Your task to perform on an android device: turn off sleep mode Image 0: 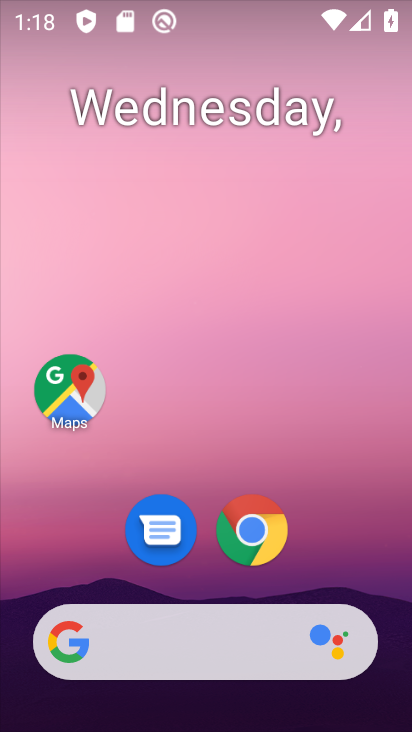
Step 0: drag from (197, 609) to (289, 149)
Your task to perform on an android device: turn off sleep mode Image 1: 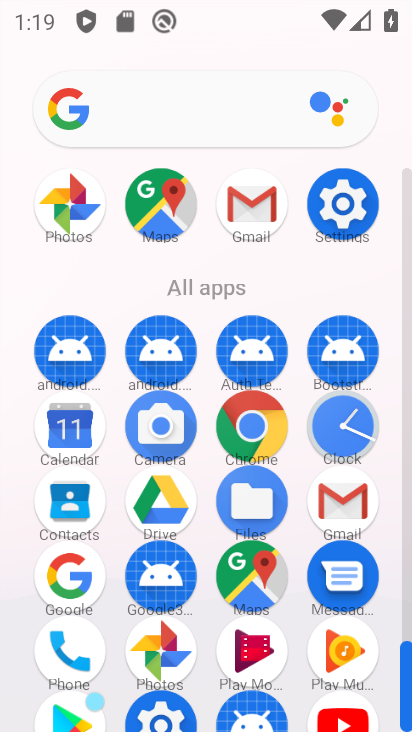
Step 1: drag from (175, 691) to (238, 415)
Your task to perform on an android device: turn off sleep mode Image 2: 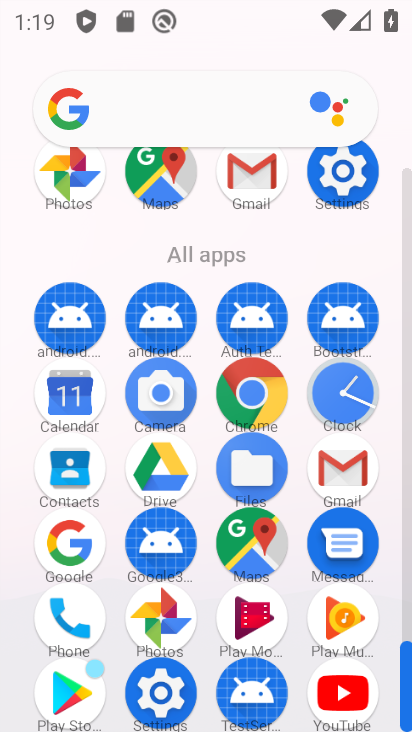
Step 2: click (155, 711)
Your task to perform on an android device: turn off sleep mode Image 3: 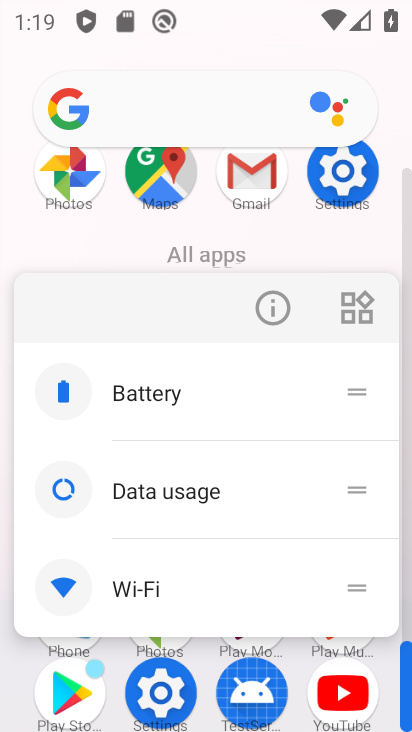
Step 3: click (154, 708)
Your task to perform on an android device: turn off sleep mode Image 4: 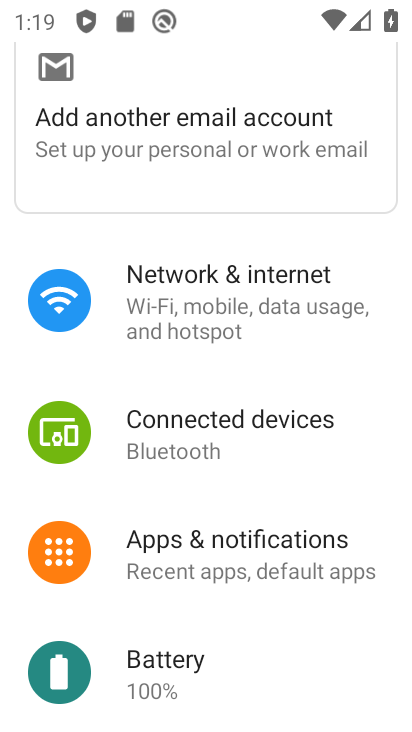
Step 4: drag from (201, 661) to (257, 285)
Your task to perform on an android device: turn off sleep mode Image 5: 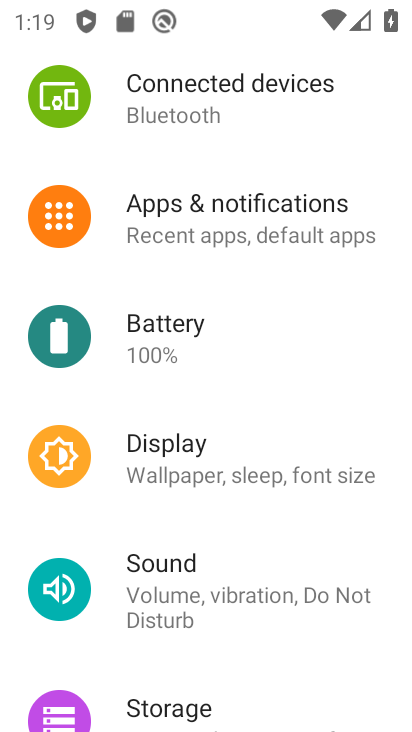
Step 5: click (225, 430)
Your task to perform on an android device: turn off sleep mode Image 6: 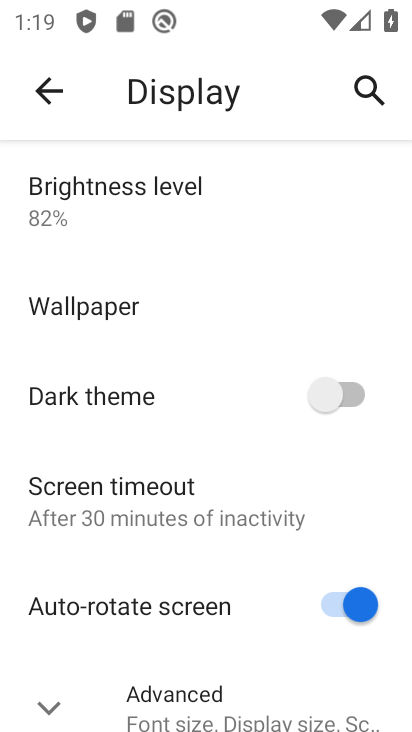
Step 6: click (188, 700)
Your task to perform on an android device: turn off sleep mode Image 7: 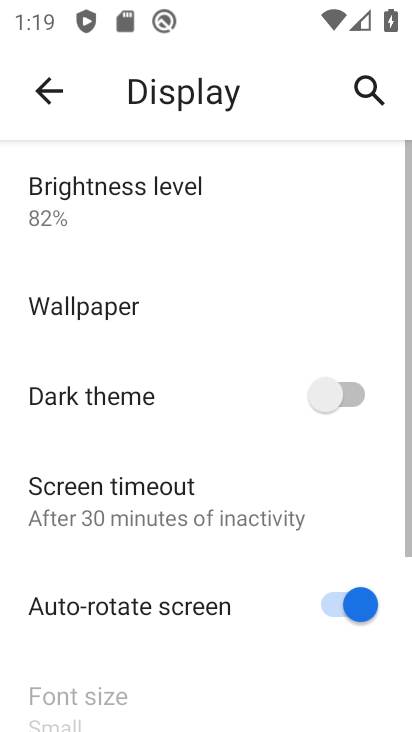
Step 7: task complete